Your task to perform on an android device: turn on showing notifications on the lock screen Image 0: 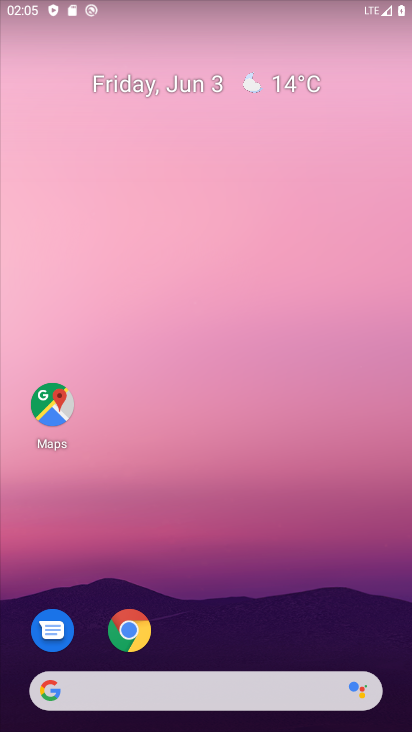
Step 0: drag from (385, 721) to (356, 181)
Your task to perform on an android device: turn on showing notifications on the lock screen Image 1: 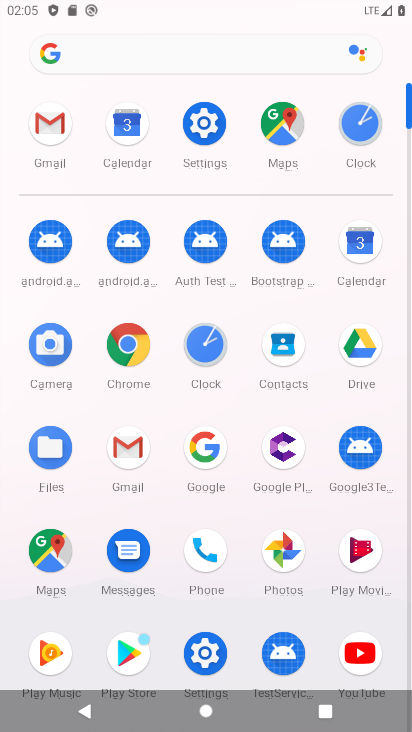
Step 1: click (208, 119)
Your task to perform on an android device: turn on showing notifications on the lock screen Image 2: 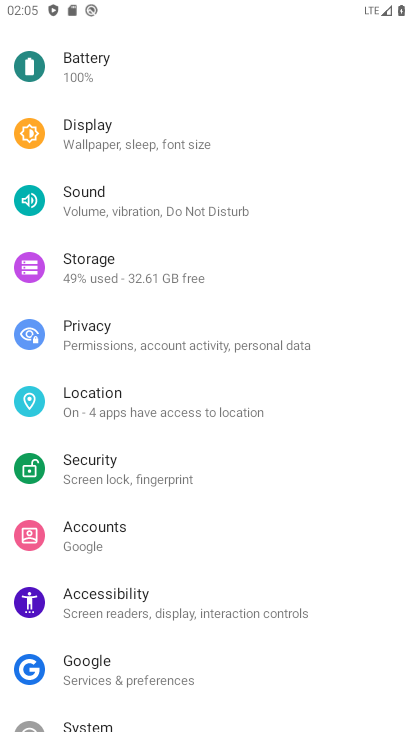
Step 2: drag from (240, 63) to (252, 487)
Your task to perform on an android device: turn on showing notifications on the lock screen Image 3: 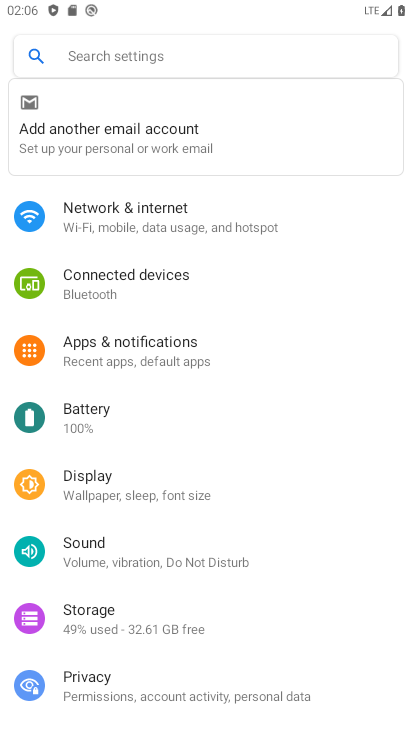
Step 3: click (110, 360)
Your task to perform on an android device: turn on showing notifications on the lock screen Image 4: 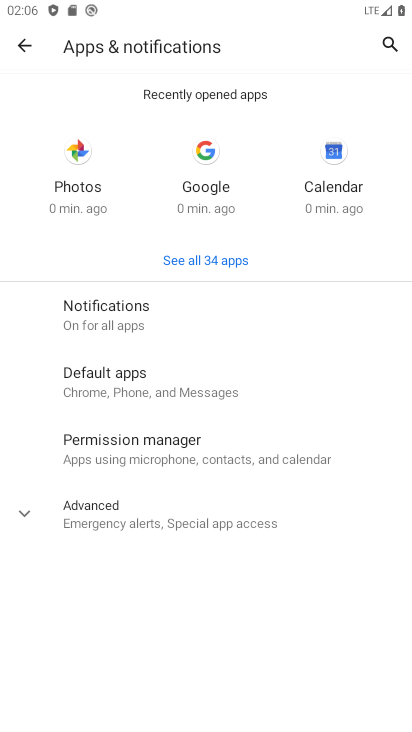
Step 4: click (112, 316)
Your task to perform on an android device: turn on showing notifications on the lock screen Image 5: 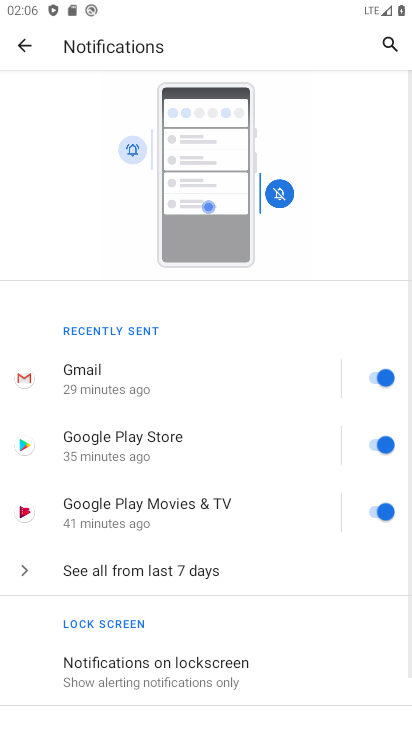
Step 5: click (150, 650)
Your task to perform on an android device: turn on showing notifications on the lock screen Image 6: 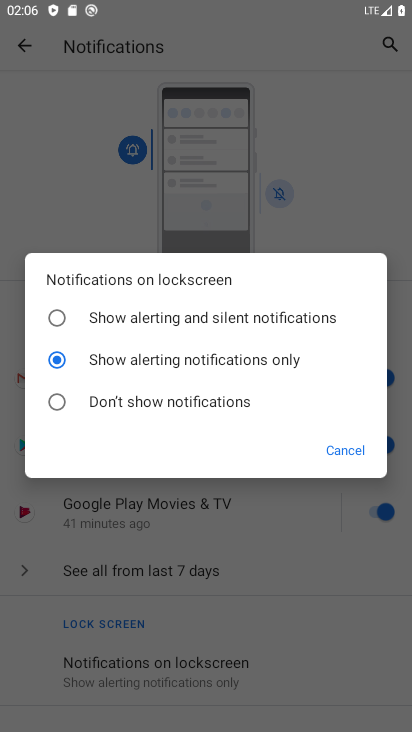
Step 6: click (56, 322)
Your task to perform on an android device: turn on showing notifications on the lock screen Image 7: 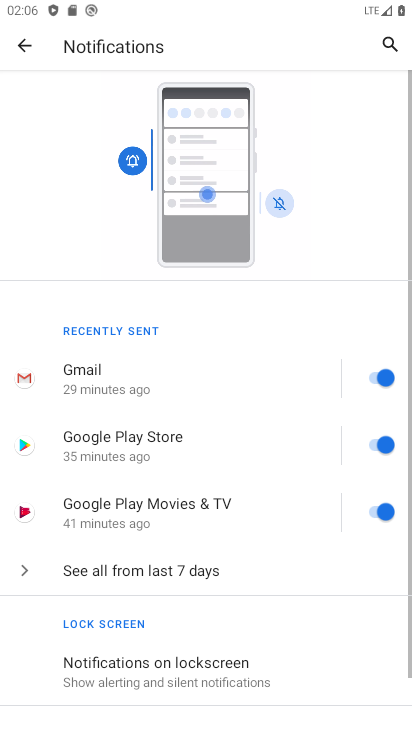
Step 7: task complete